Your task to perform on an android device: turn off sleep mode Image 0: 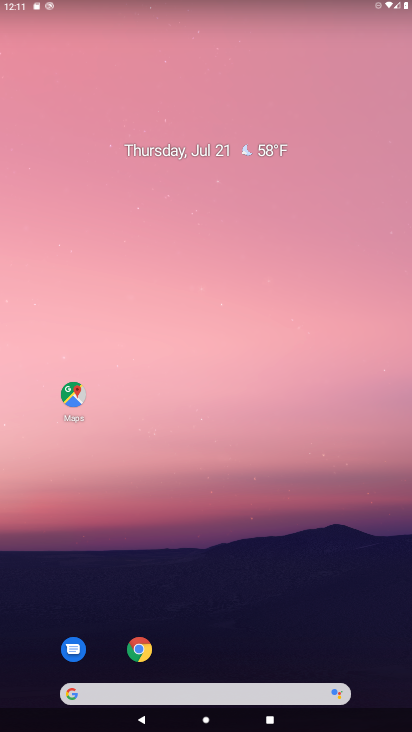
Step 0: drag from (281, 645) to (253, 168)
Your task to perform on an android device: turn off sleep mode Image 1: 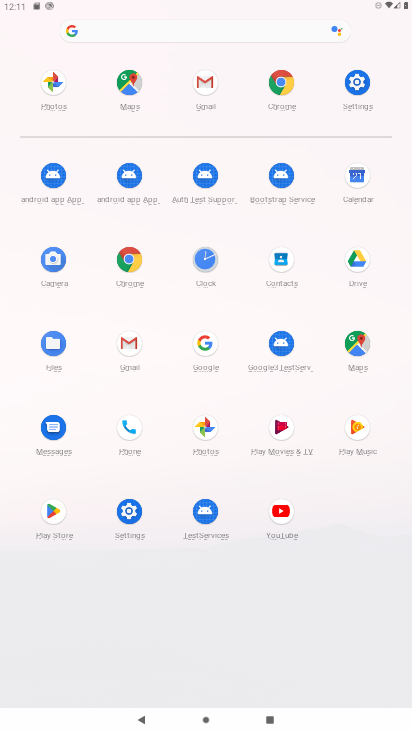
Step 1: drag from (359, 78) to (114, 155)
Your task to perform on an android device: turn off sleep mode Image 2: 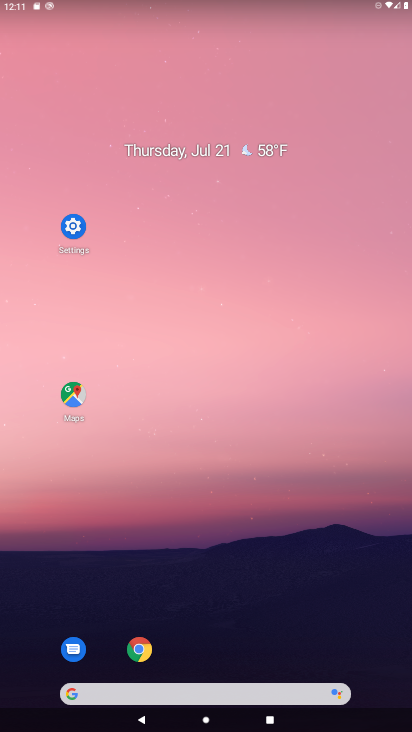
Step 2: click (73, 216)
Your task to perform on an android device: turn off sleep mode Image 3: 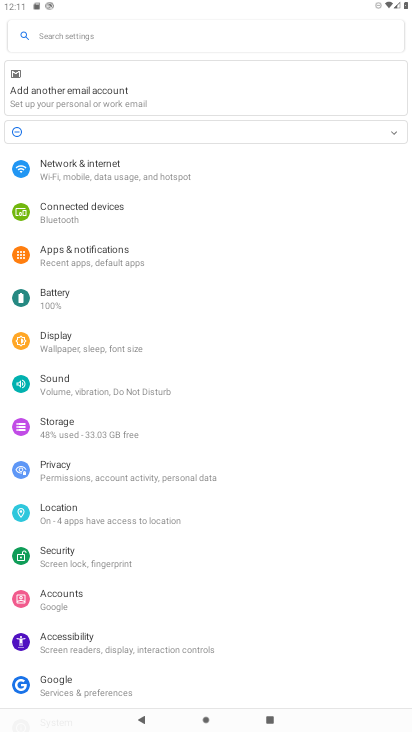
Step 3: click (160, 356)
Your task to perform on an android device: turn off sleep mode Image 4: 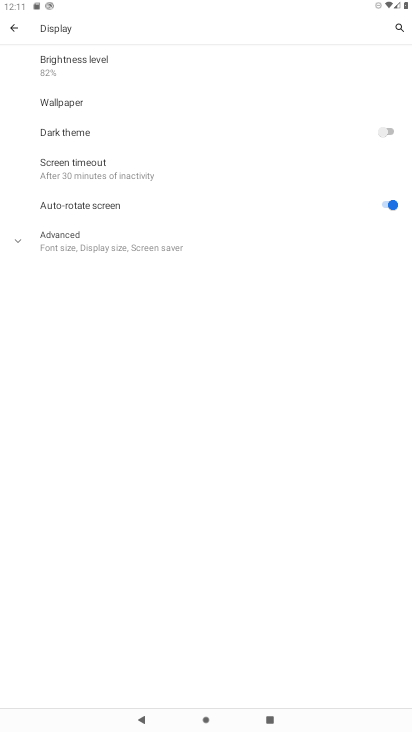
Step 4: click (141, 237)
Your task to perform on an android device: turn off sleep mode Image 5: 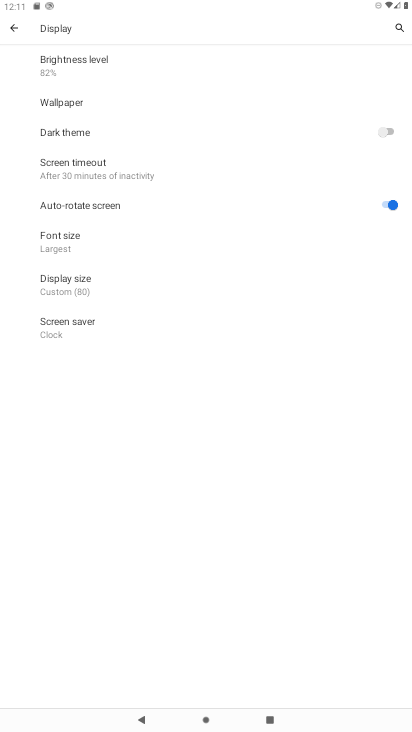
Step 5: click (123, 160)
Your task to perform on an android device: turn off sleep mode Image 6: 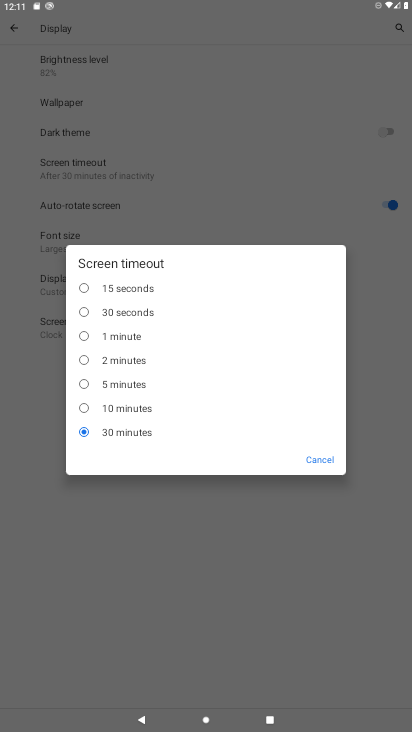
Step 6: task complete